Your task to perform on an android device: change notification settings in the gmail app Image 0: 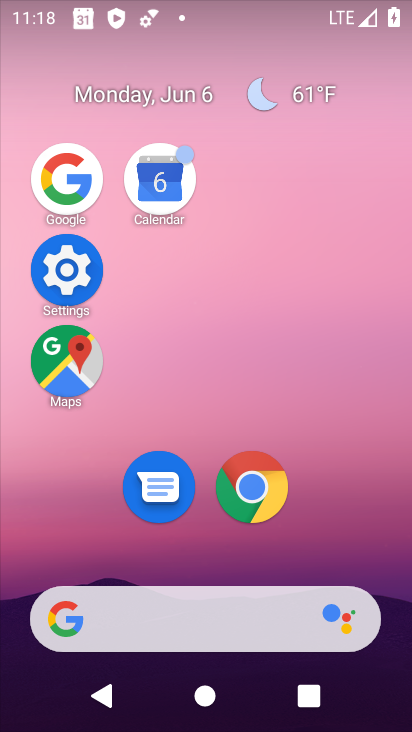
Step 0: drag from (315, 546) to (363, 250)
Your task to perform on an android device: change notification settings in the gmail app Image 1: 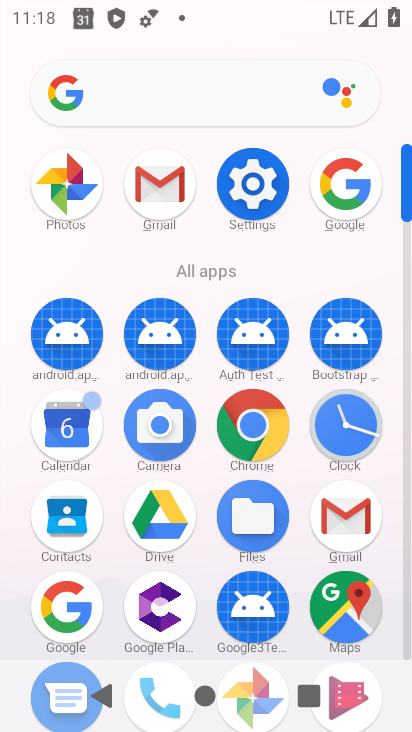
Step 1: click (164, 211)
Your task to perform on an android device: change notification settings in the gmail app Image 2: 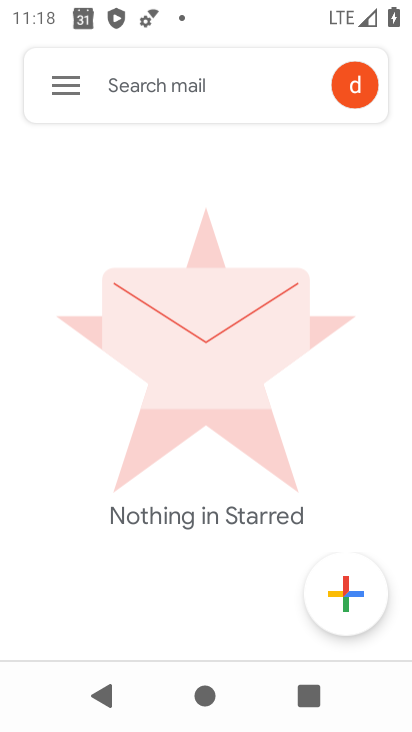
Step 2: click (41, 108)
Your task to perform on an android device: change notification settings in the gmail app Image 3: 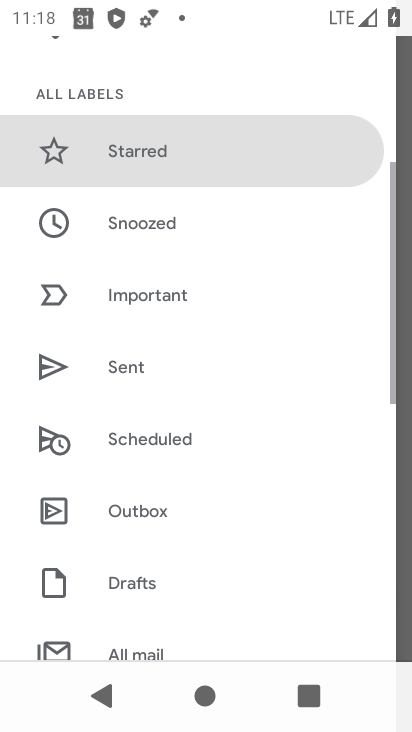
Step 3: drag from (188, 533) to (205, 187)
Your task to perform on an android device: change notification settings in the gmail app Image 4: 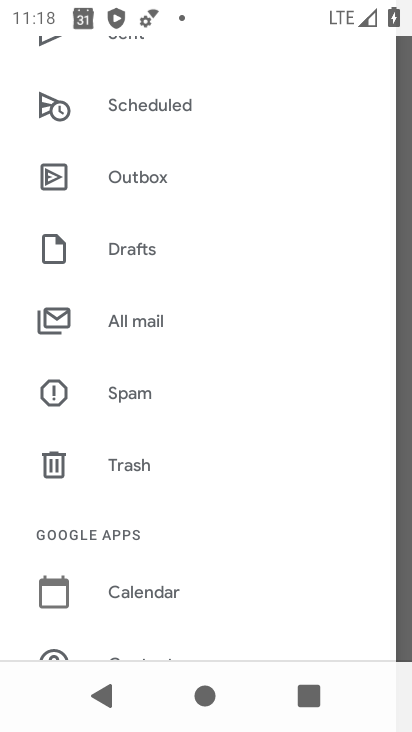
Step 4: drag from (209, 571) to (276, 261)
Your task to perform on an android device: change notification settings in the gmail app Image 5: 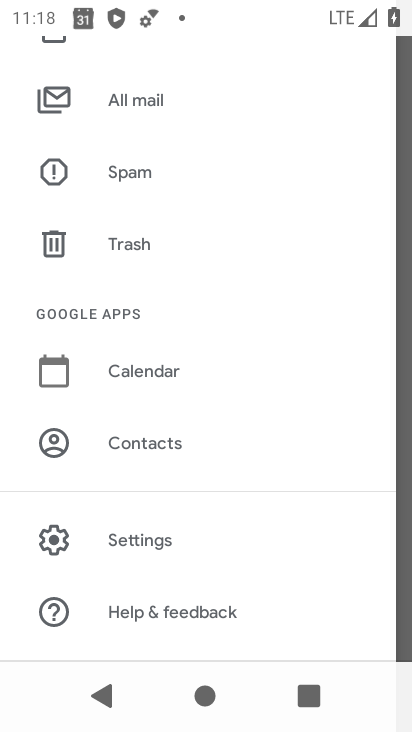
Step 5: click (218, 551)
Your task to perform on an android device: change notification settings in the gmail app Image 6: 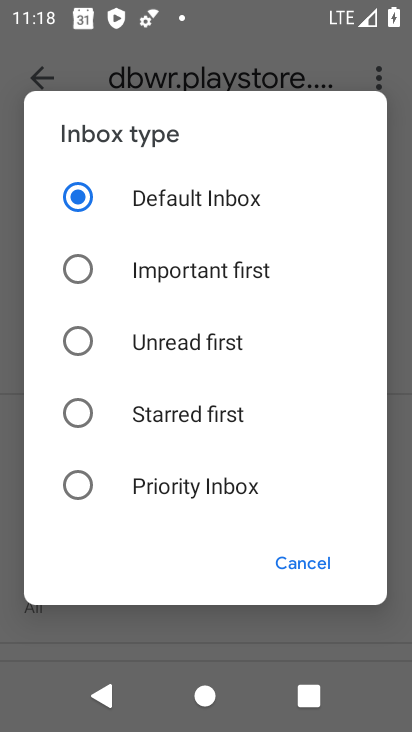
Step 6: click (308, 546)
Your task to perform on an android device: change notification settings in the gmail app Image 7: 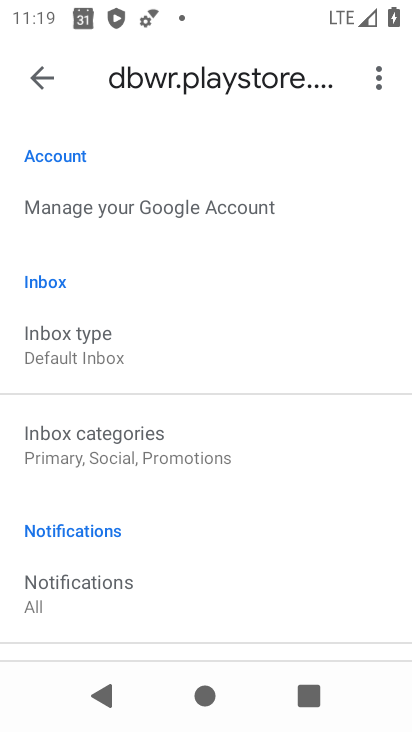
Step 7: click (165, 568)
Your task to perform on an android device: change notification settings in the gmail app Image 8: 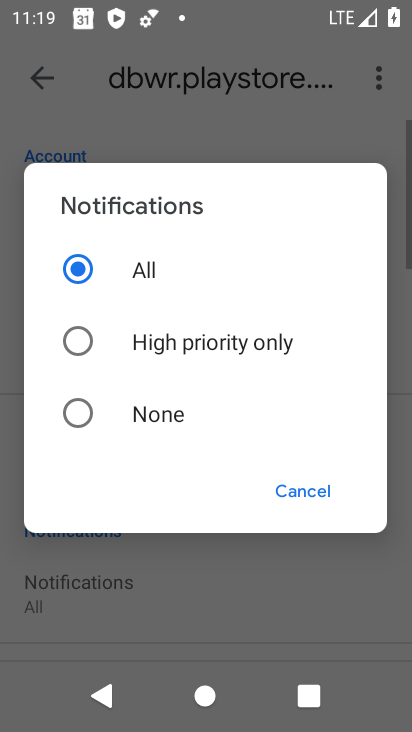
Step 8: click (132, 354)
Your task to perform on an android device: change notification settings in the gmail app Image 9: 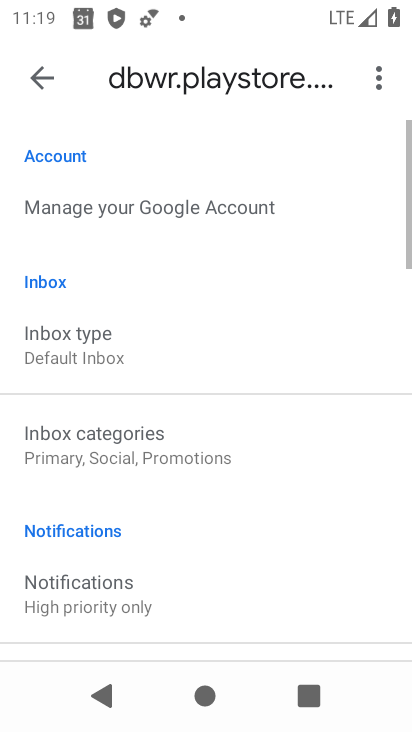
Step 9: task complete